Your task to perform on an android device: Search for "macbook pro 15 inch" on costco, select the first entry, and add it to the cart. Image 0: 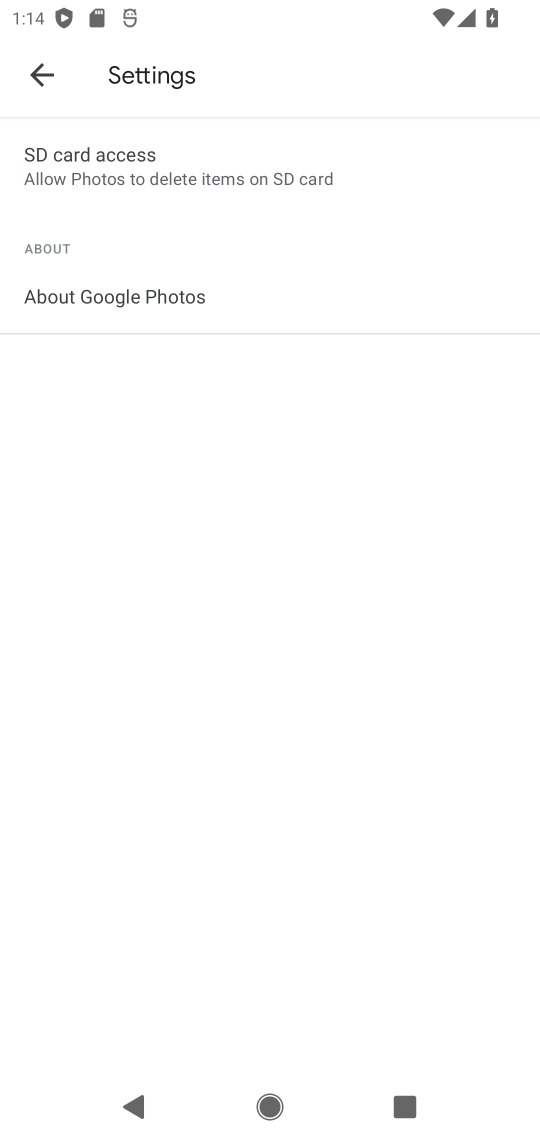
Step 0: press home button
Your task to perform on an android device: Search for "macbook pro 15 inch" on costco, select the first entry, and add it to the cart. Image 1: 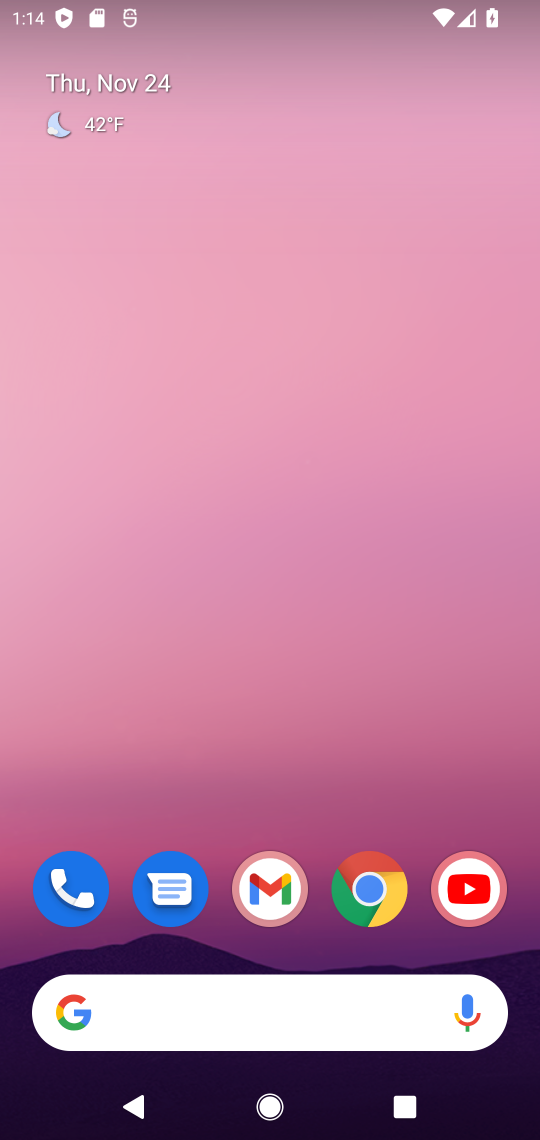
Step 1: click (357, 879)
Your task to perform on an android device: Search for "macbook pro 15 inch" on costco, select the first entry, and add it to the cart. Image 2: 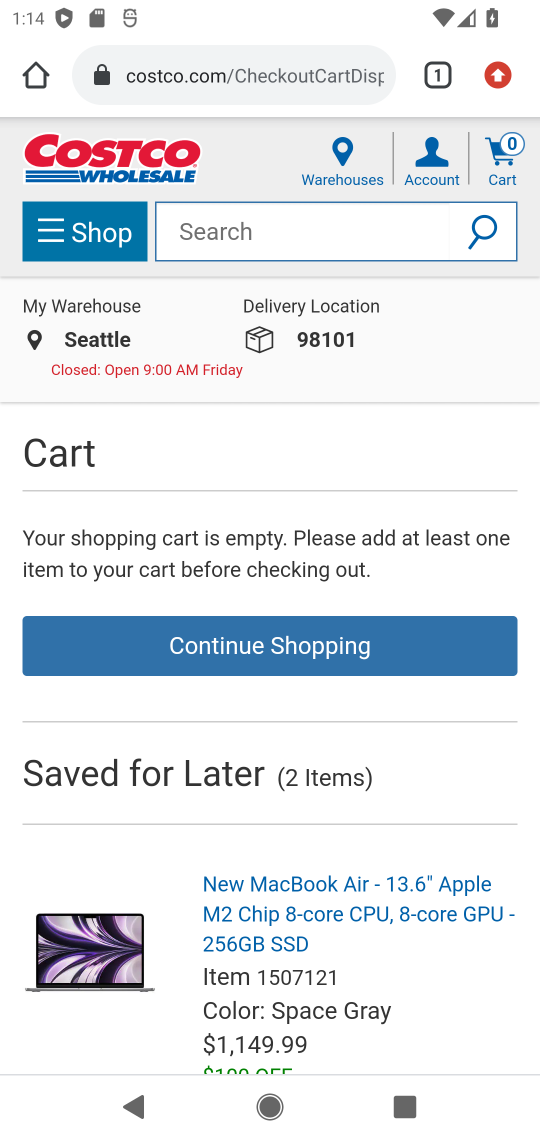
Step 2: click (255, 217)
Your task to perform on an android device: Search for "macbook pro 15 inch" on costco, select the first entry, and add it to the cart. Image 3: 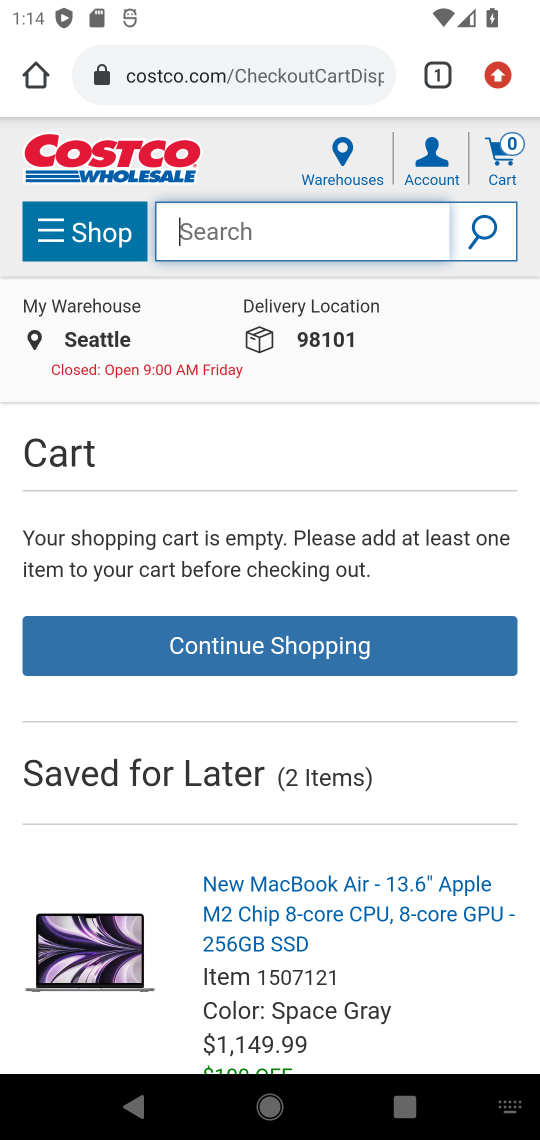
Step 3: type "macbook pro 15 inch"
Your task to perform on an android device: Search for "macbook pro 15 inch" on costco, select the first entry, and add it to the cart. Image 4: 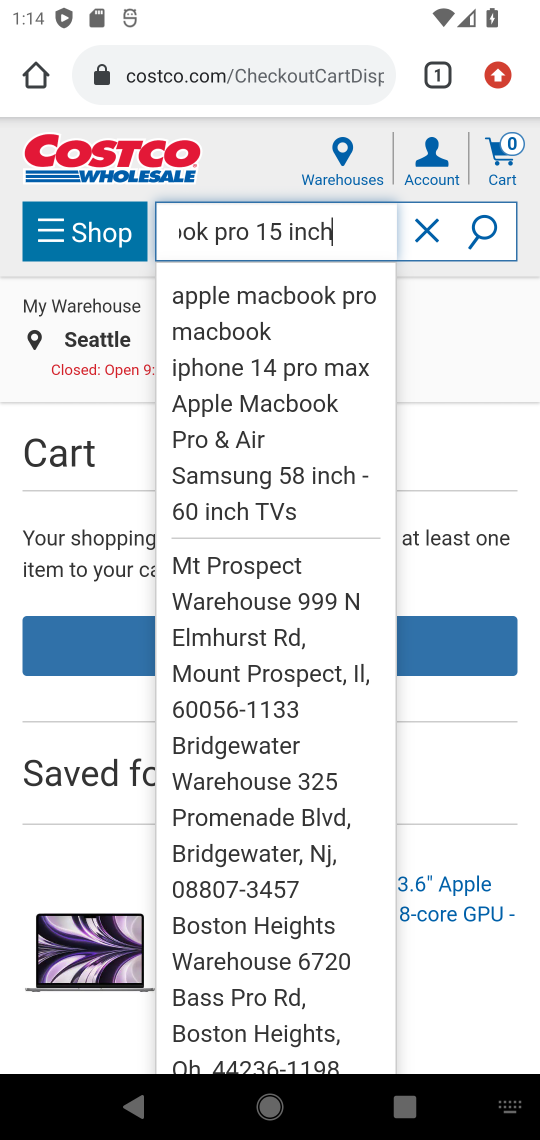
Step 4: click (481, 239)
Your task to perform on an android device: Search for "macbook pro 15 inch" on costco, select the first entry, and add it to the cart. Image 5: 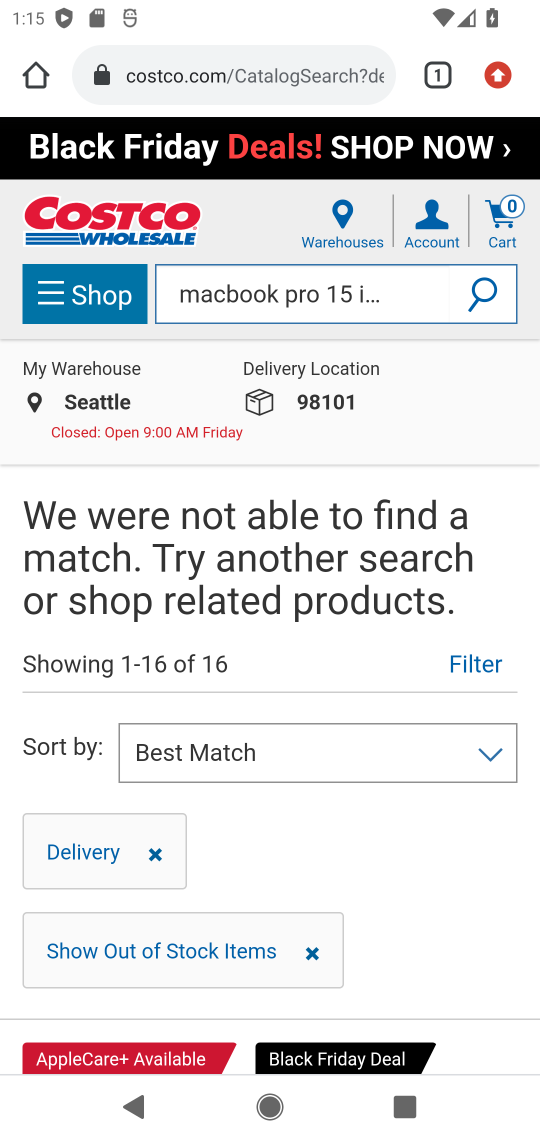
Step 5: task complete